Your task to perform on an android device: Set the phone to "Do not disturb". Image 0: 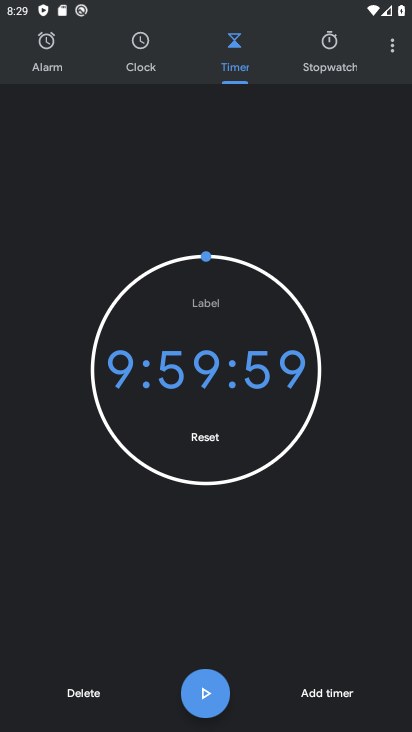
Step 0: press home button
Your task to perform on an android device: Set the phone to "Do not disturb". Image 1: 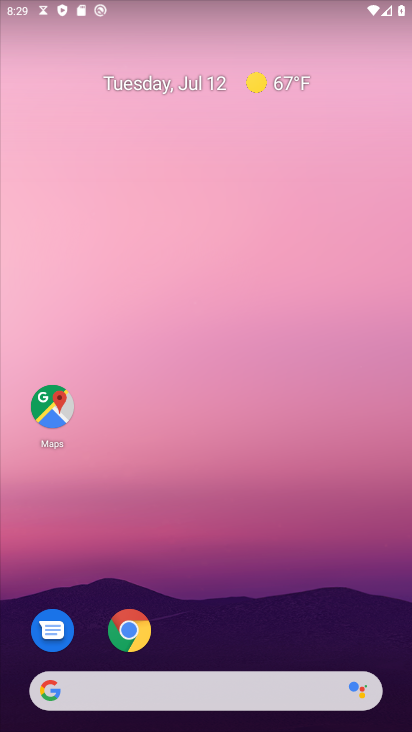
Step 1: drag from (265, 642) to (200, 172)
Your task to perform on an android device: Set the phone to "Do not disturb". Image 2: 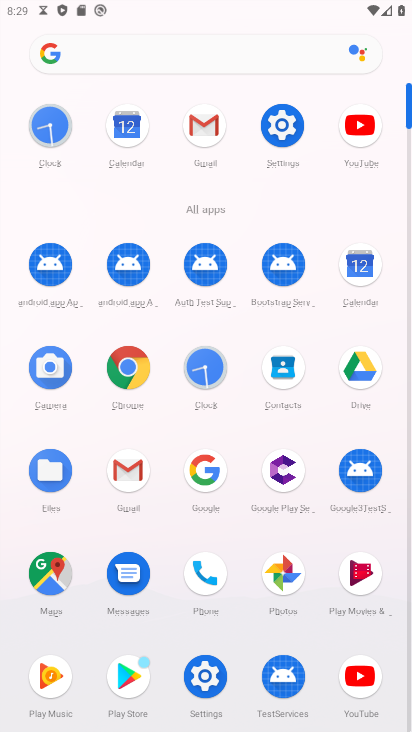
Step 2: click (291, 125)
Your task to perform on an android device: Set the phone to "Do not disturb". Image 3: 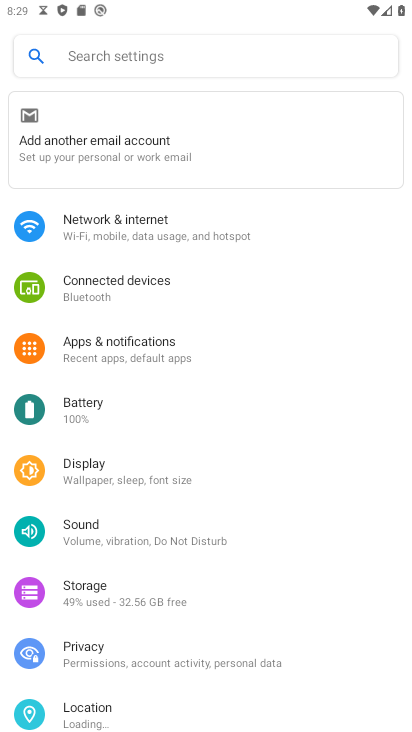
Step 3: drag from (193, 610) to (176, 276)
Your task to perform on an android device: Set the phone to "Do not disturb". Image 4: 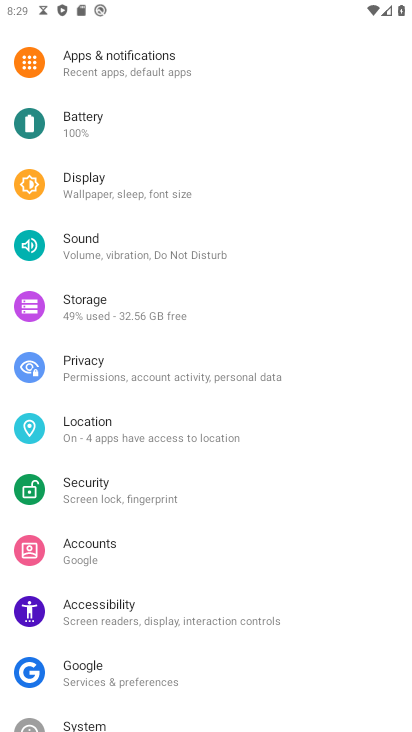
Step 4: click (181, 249)
Your task to perform on an android device: Set the phone to "Do not disturb". Image 5: 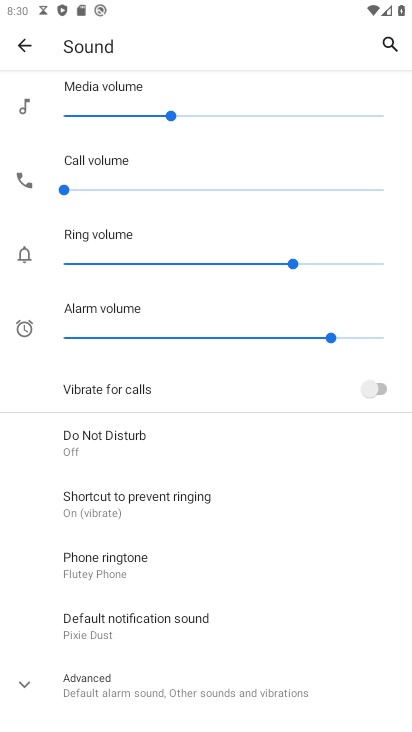
Step 5: click (199, 437)
Your task to perform on an android device: Set the phone to "Do not disturb". Image 6: 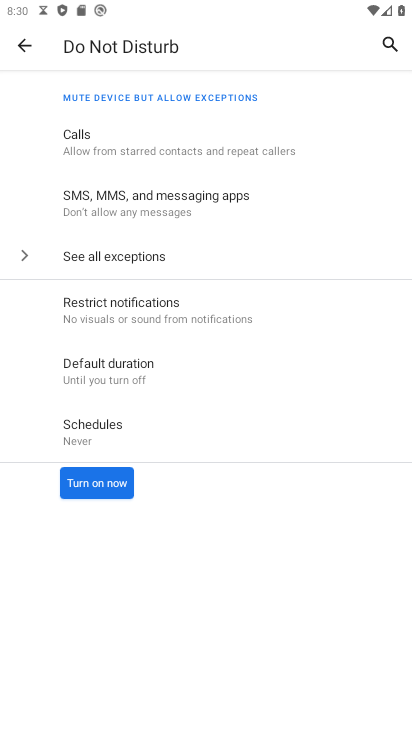
Step 6: click (113, 489)
Your task to perform on an android device: Set the phone to "Do not disturb". Image 7: 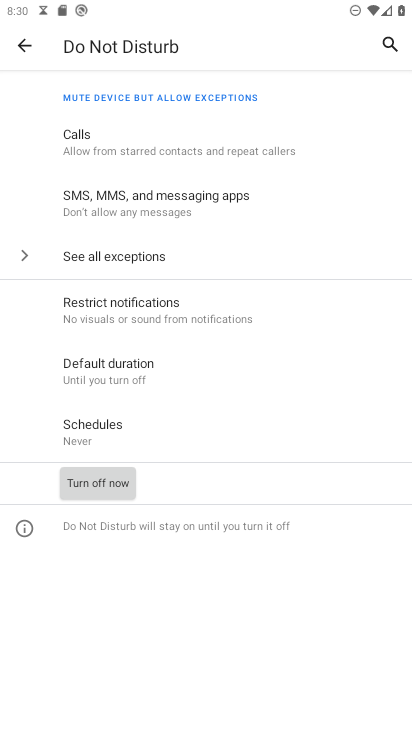
Step 7: task complete